Your task to perform on an android device: turn off airplane mode Image 0: 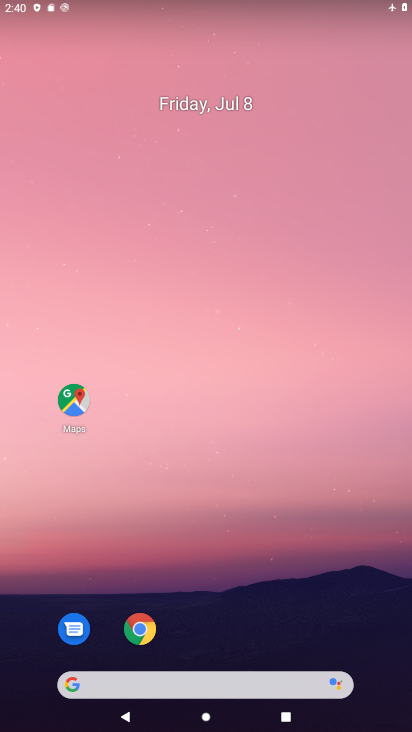
Step 0: drag from (44, 714) to (318, 84)
Your task to perform on an android device: turn off airplane mode Image 1: 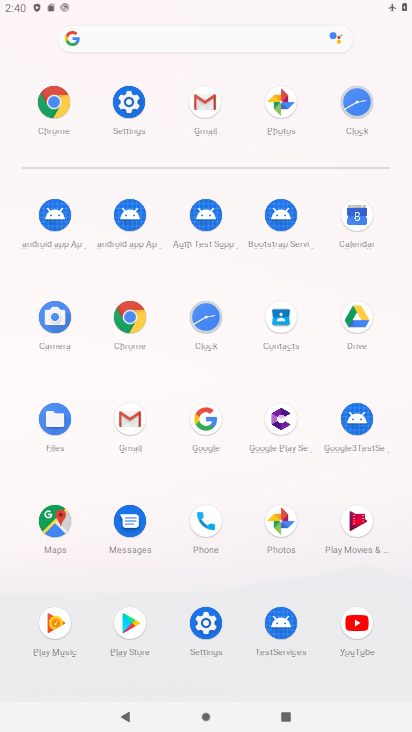
Step 1: click (199, 637)
Your task to perform on an android device: turn off airplane mode Image 2: 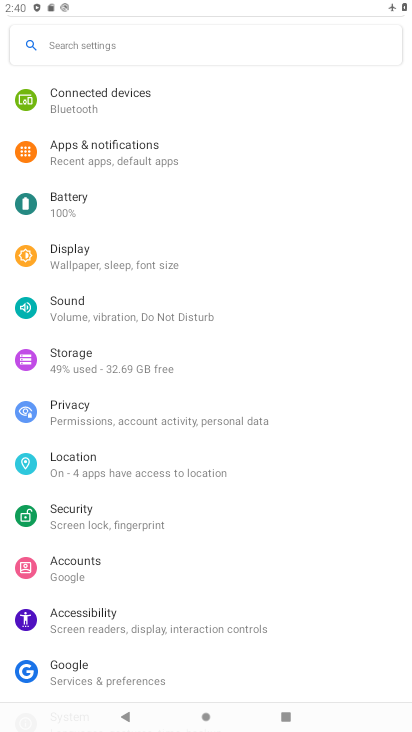
Step 2: drag from (201, 123) to (199, 610)
Your task to perform on an android device: turn off airplane mode Image 3: 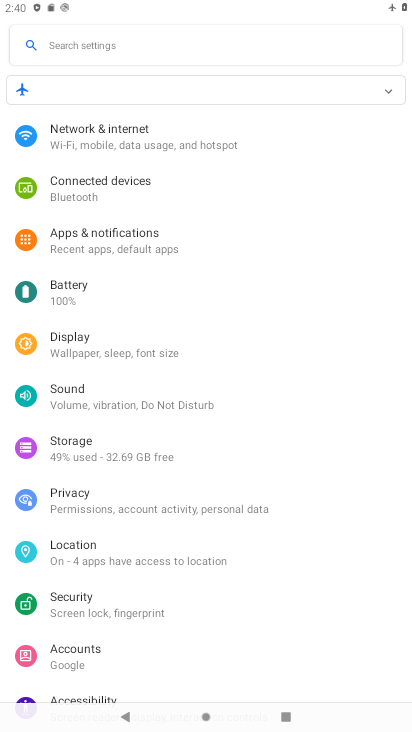
Step 3: click (130, 141)
Your task to perform on an android device: turn off airplane mode Image 4: 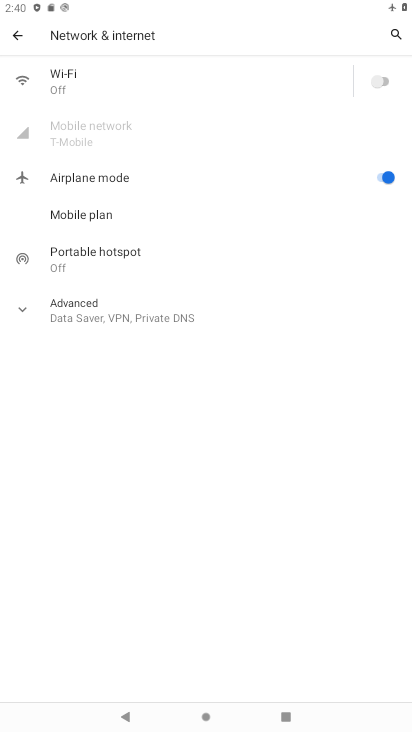
Step 4: click (389, 174)
Your task to perform on an android device: turn off airplane mode Image 5: 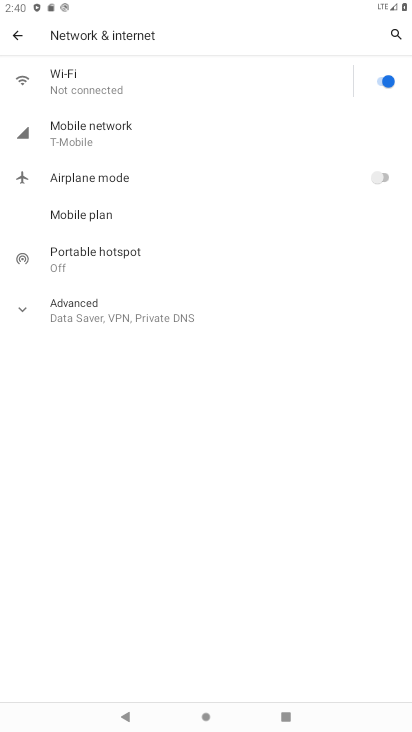
Step 5: task complete